Your task to perform on an android device: Go to display settings Image 0: 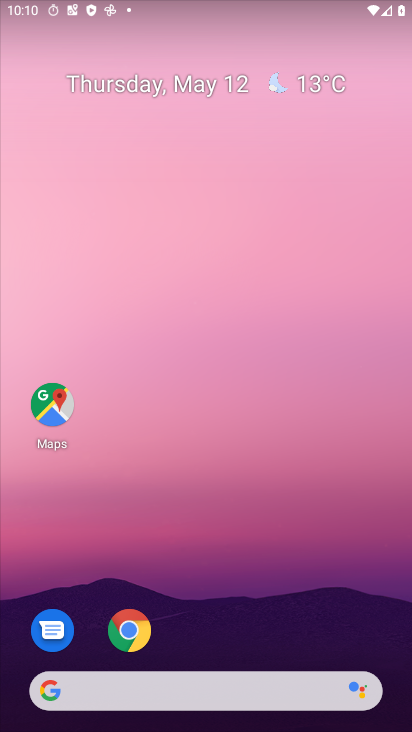
Step 0: drag from (155, 691) to (180, 100)
Your task to perform on an android device: Go to display settings Image 1: 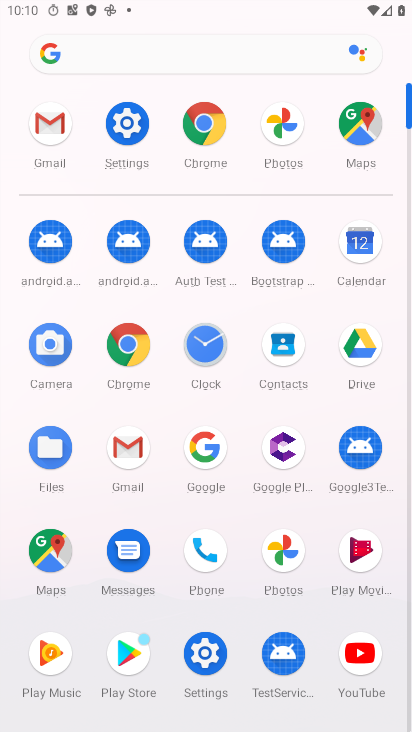
Step 1: click (223, 671)
Your task to perform on an android device: Go to display settings Image 2: 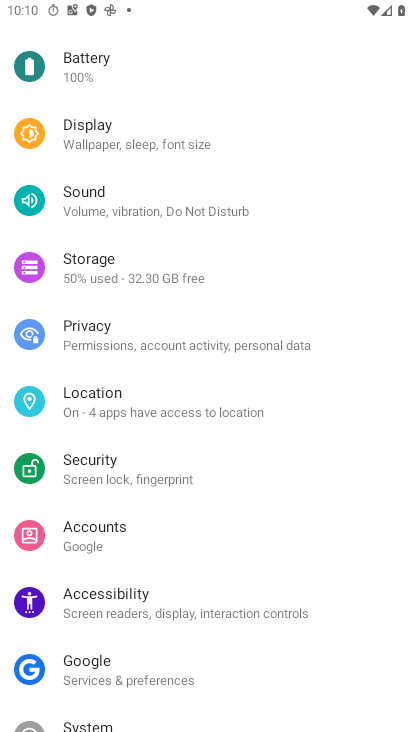
Step 2: click (81, 133)
Your task to perform on an android device: Go to display settings Image 3: 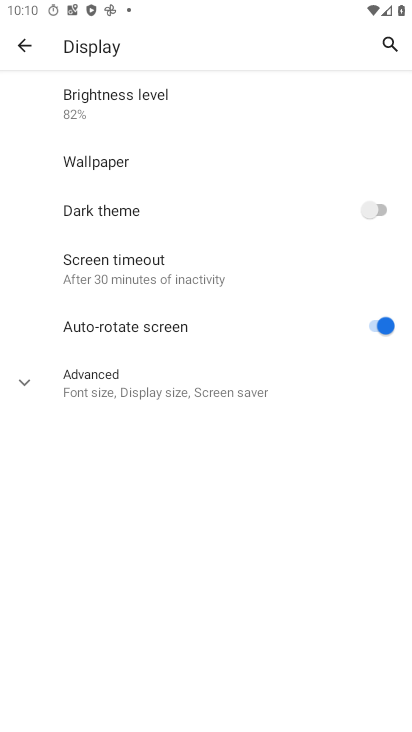
Step 3: click (168, 390)
Your task to perform on an android device: Go to display settings Image 4: 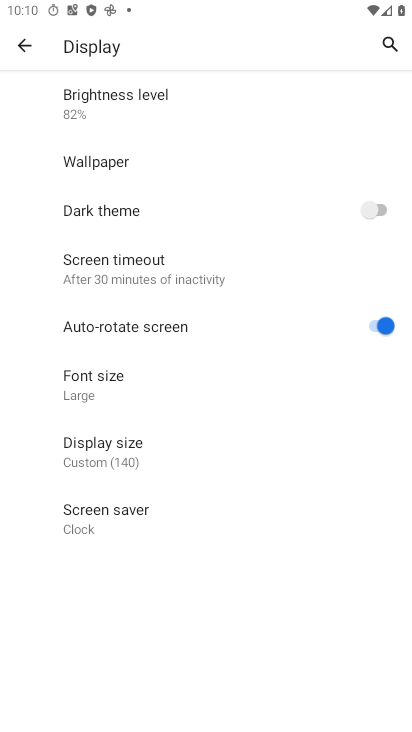
Step 4: task complete